Your task to perform on an android device: Open internet settings Image 0: 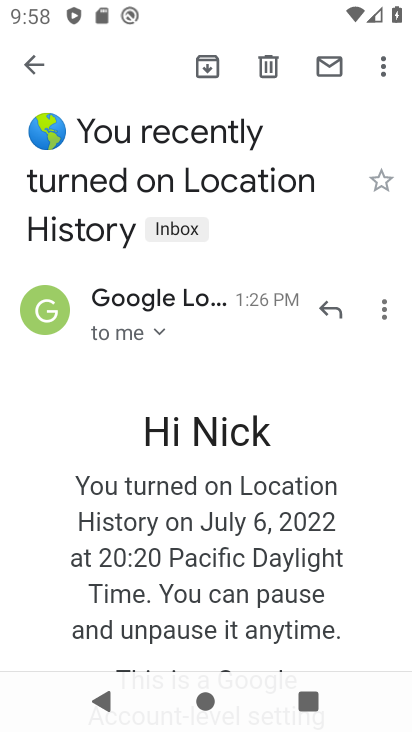
Step 0: press home button
Your task to perform on an android device: Open internet settings Image 1: 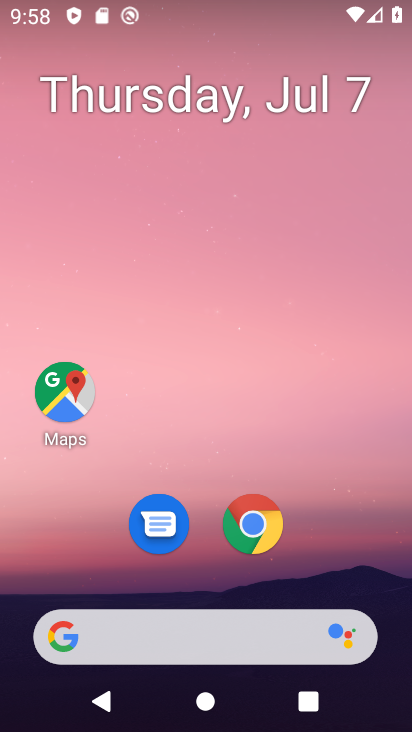
Step 1: drag from (247, 447) to (265, 28)
Your task to perform on an android device: Open internet settings Image 2: 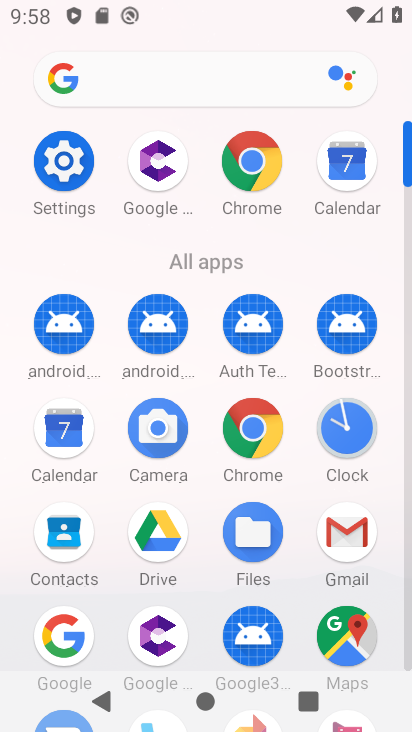
Step 2: click (68, 159)
Your task to perform on an android device: Open internet settings Image 3: 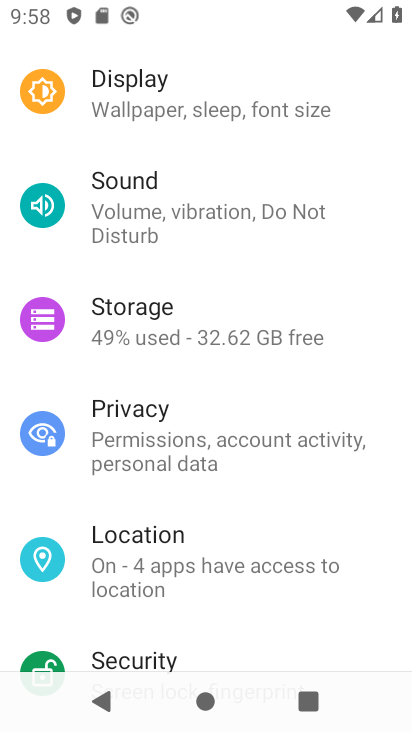
Step 3: drag from (238, 270) to (229, 643)
Your task to perform on an android device: Open internet settings Image 4: 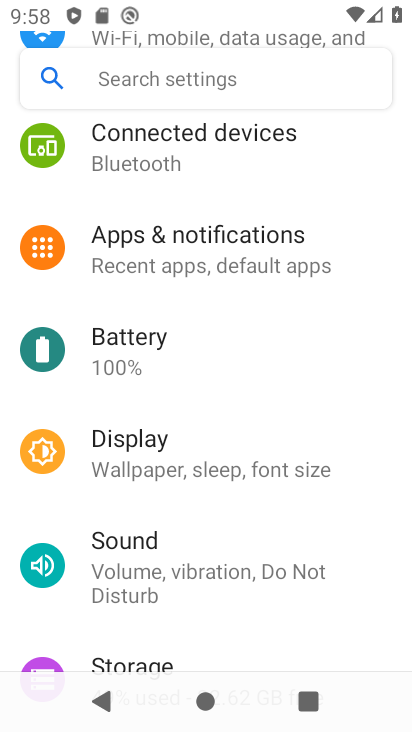
Step 4: drag from (233, 166) to (261, 566)
Your task to perform on an android device: Open internet settings Image 5: 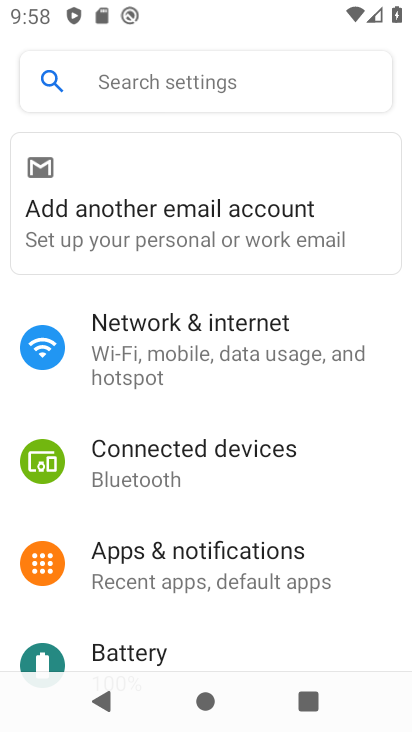
Step 5: click (216, 349)
Your task to perform on an android device: Open internet settings Image 6: 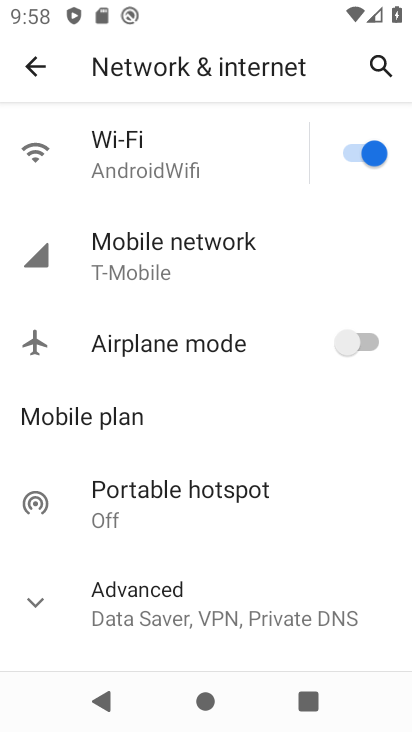
Step 6: task complete